Your task to perform on an android device: find photos in the google photos app Image 0: 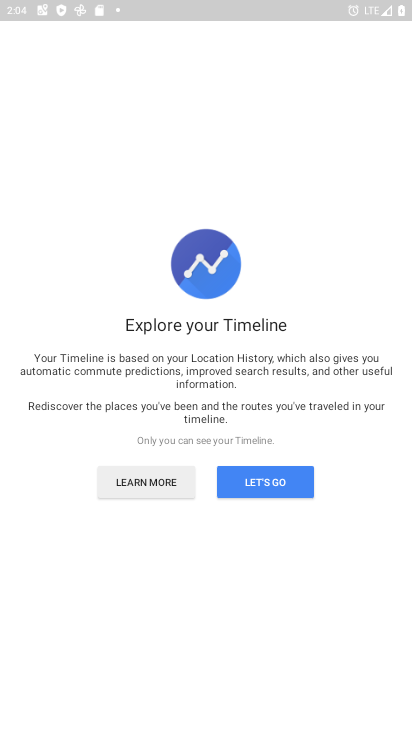
Step 0: press home button
Your task to perform on an android device: find photos in the google photos app Image 1: 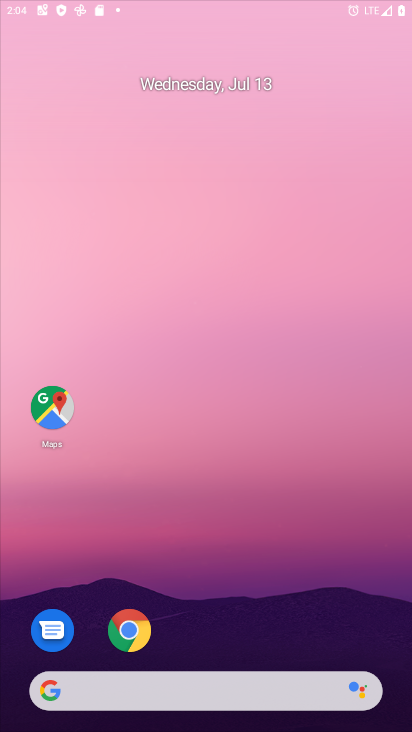
Step 1: drag from (382, 688) to (199, 83)
Your task to perform on an android device: find photos in the google photos app Image 2: 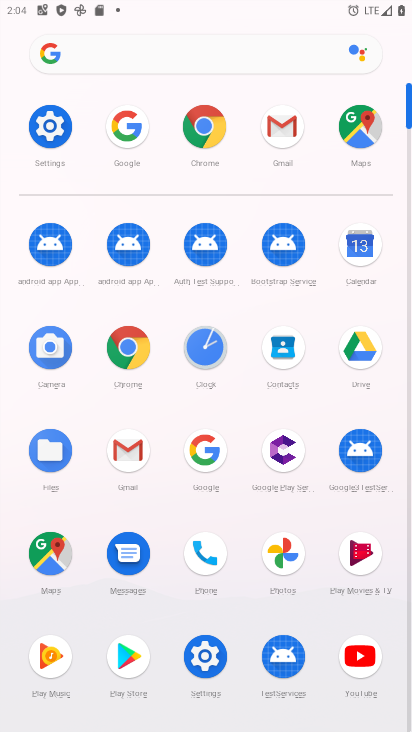
Step 2: click (264, 539)
Your task to perform on an android device: find photos in the google photos app Image 3: 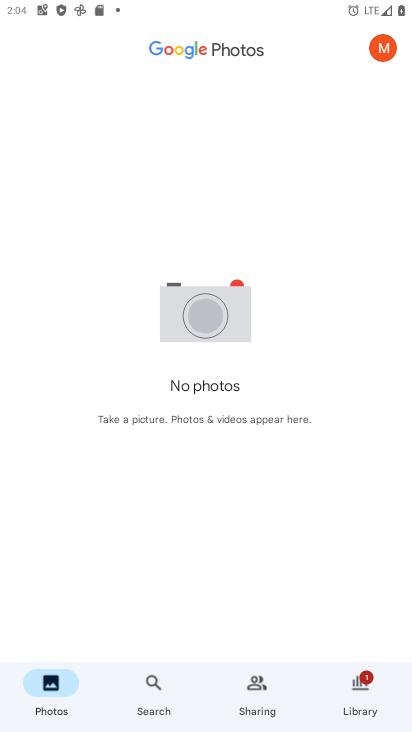
Step 3: task complete